Your task to perform on an android device: install app "LinkedIn" Image 0: 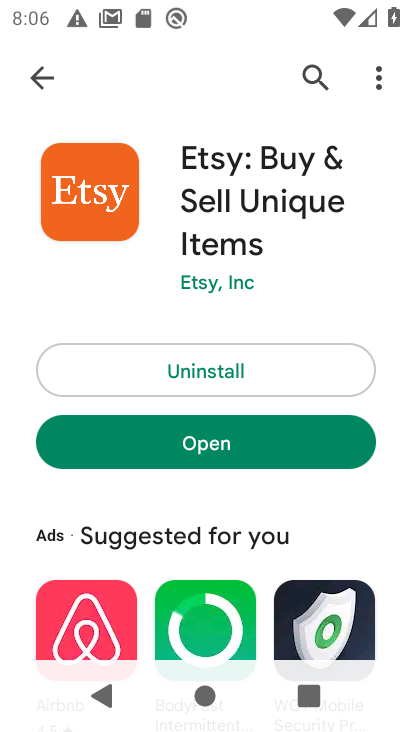
Step 0: press home button
Your task to perform on an android device: install app "LinkedIn" Image 1: 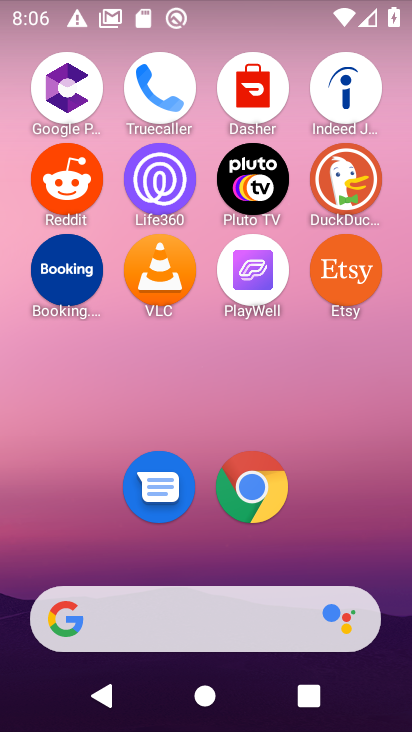
Step 1: drag from (377, 547) to (360, 61)
Your task to perform on an android device: install app "LinkedIn" Image 2: 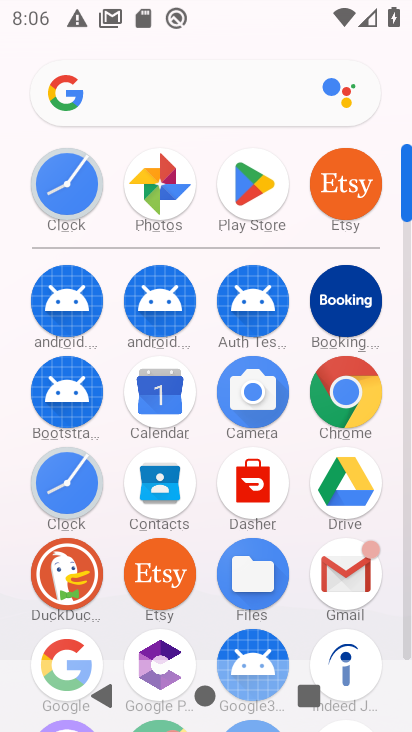
Step 2: click (250, 192)
Your task to perform on an android device: install app "LinkedIn" Image 3: 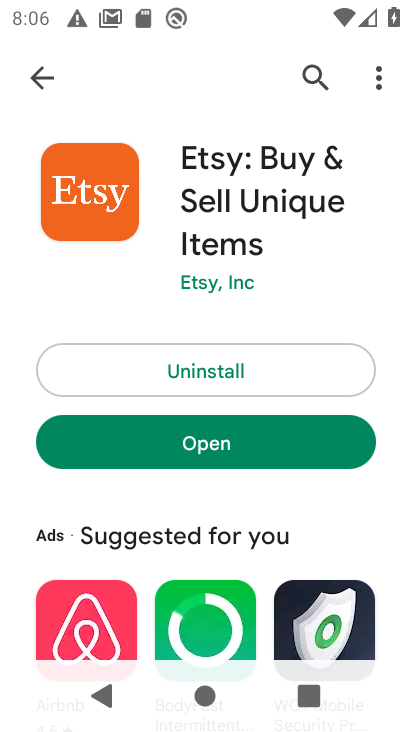
Step 3: click (319, 81)
Your task to perform on an android device: install app "LinkedIn" Image 4: 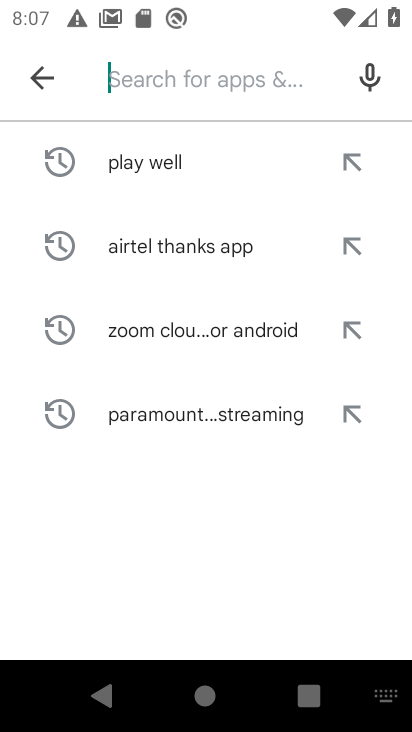
Step 4: type "linkedin"
Your task to perform on an android device: install app "LinkedIn" Image 5: 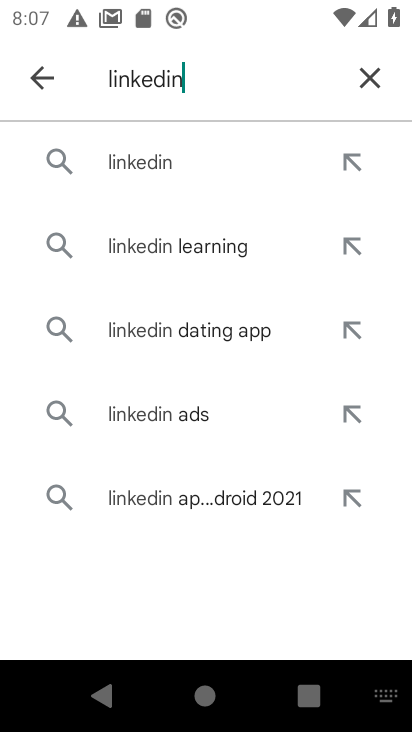
Step 5: click (190, 151)
Your task to perform on an android device: install app "LinkedIn" Image 6: 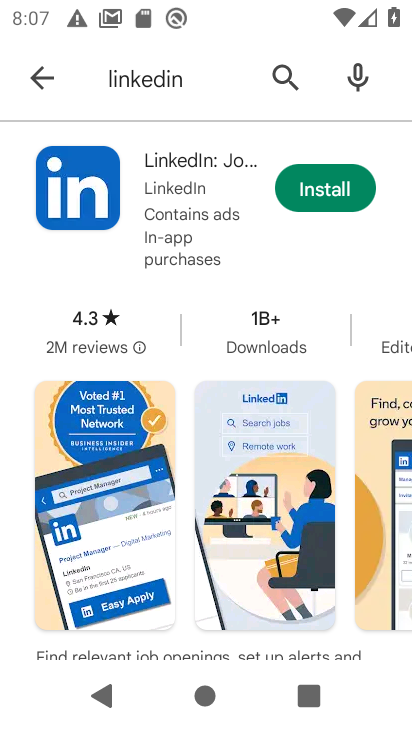
Step 6: click (338, 189)
Your task to perform on an android device: install app "LinkedIn" Image 7: 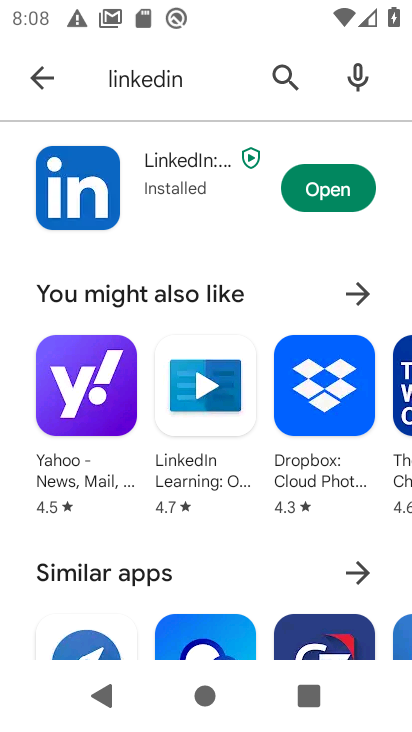
Step 7: task complete